Your task to perform on an android device: turn off location Image 0: 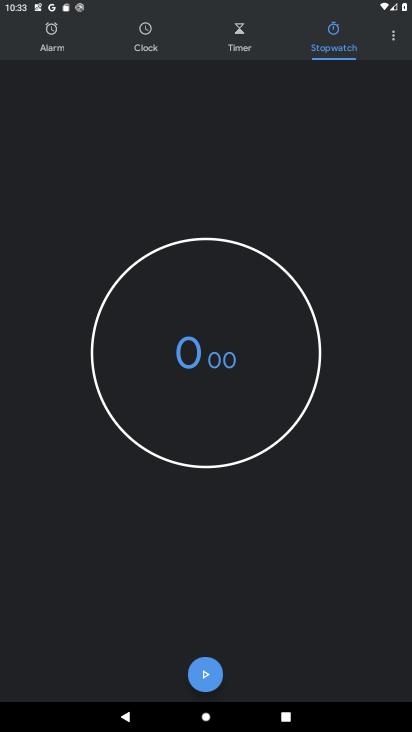
Step 0: press home button
Your task to perform on an android device: turn off location Image 1: 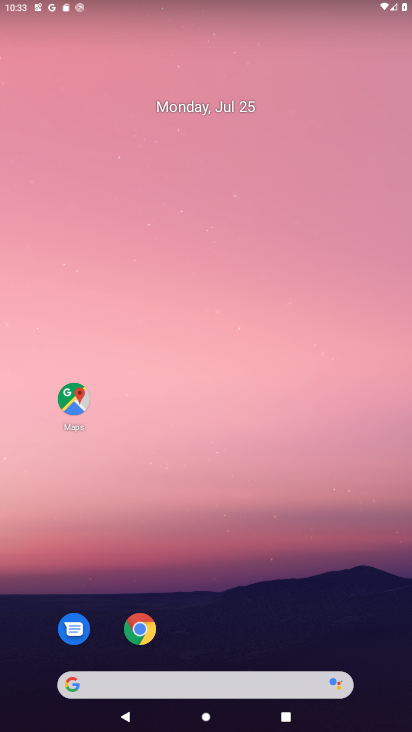
Step 1: drag from (223, 582) to (231, 2)
Your task to perform on an android device: turn off location Image 2: 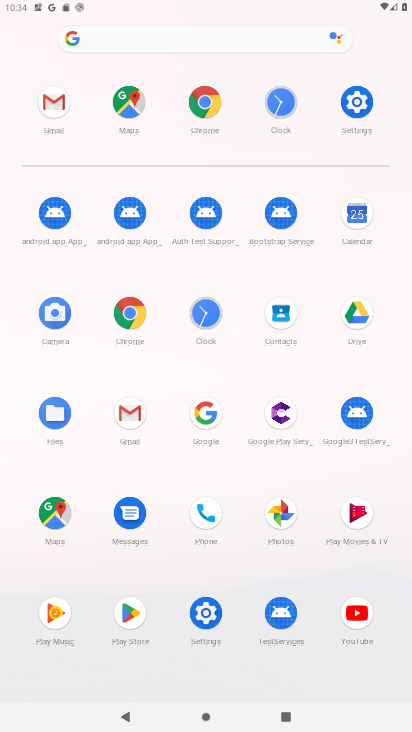
Step 2: click (363, 113)
Your task to perform on an android device: turn off location Image 3: 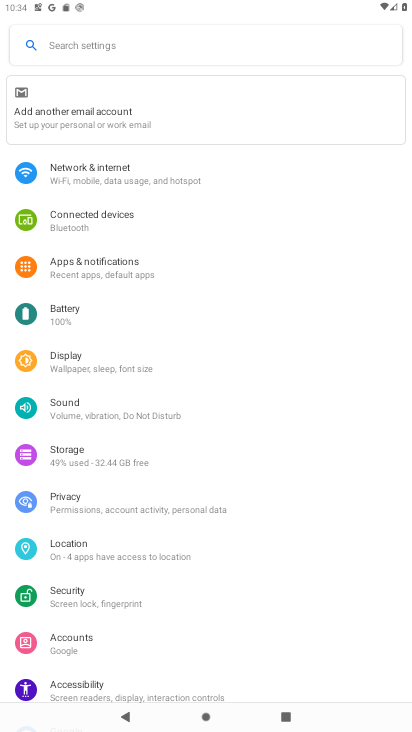
Step 3: click (65, 556)
Your task to perform on an android device: turn off location Image 4: 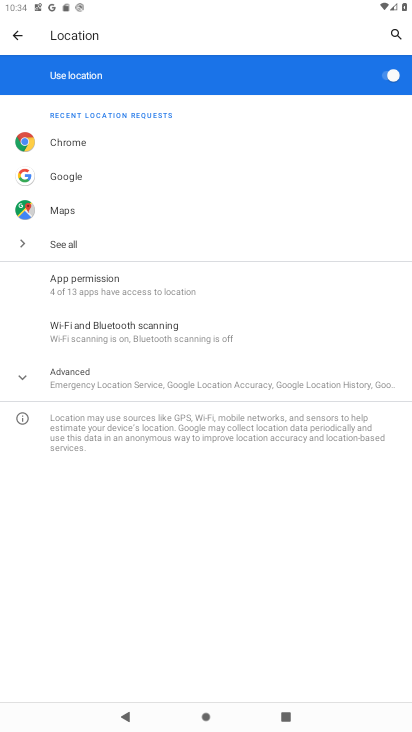
Step 4: click (389, 71)
Your task to perform on an android device: turn off location Image 5: 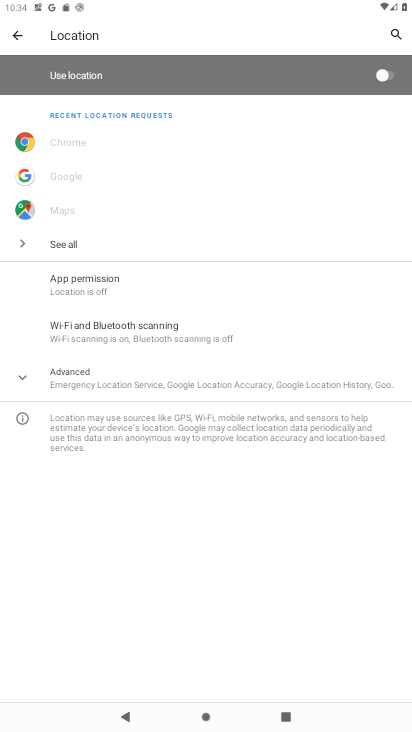
Step 5: task complete